Your task to perform on an android device: open app "LiveIn - Share Your Moment" (install if not already installed) and go to login screen Image 0: 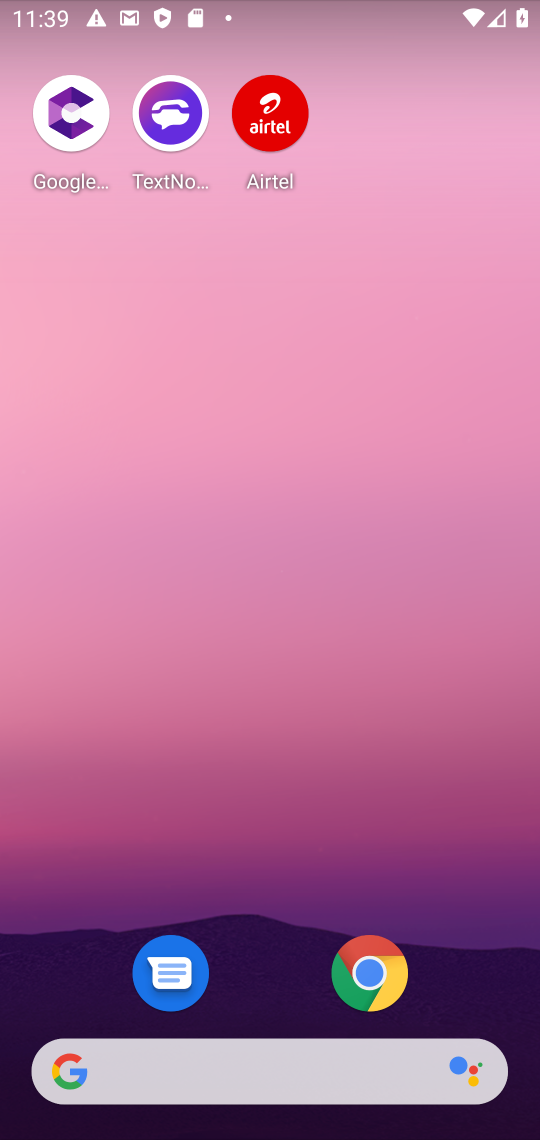
Step 0: drag from (277, 990) to (243, 223)
Your task to perform on an android device: open app "LiveIn - Share Your Moment" (install if not already installed) and go to login screen Image 1: 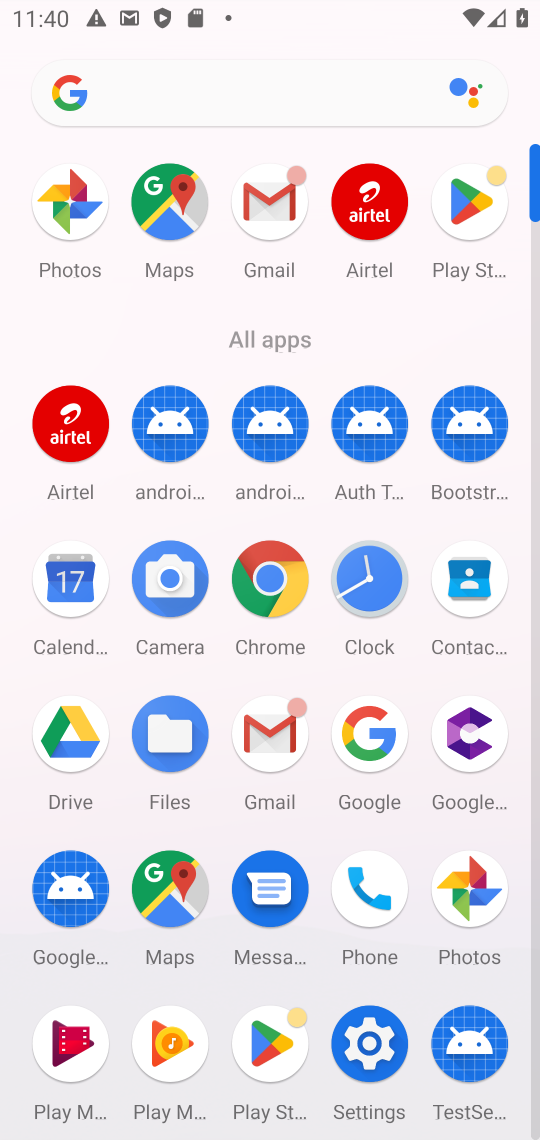
Step 1: click (274, 1045)
Your task to perform on an android device: open app "LiveIn - Share Your Moment" (install if not already installed) and go to login screen Image 2: 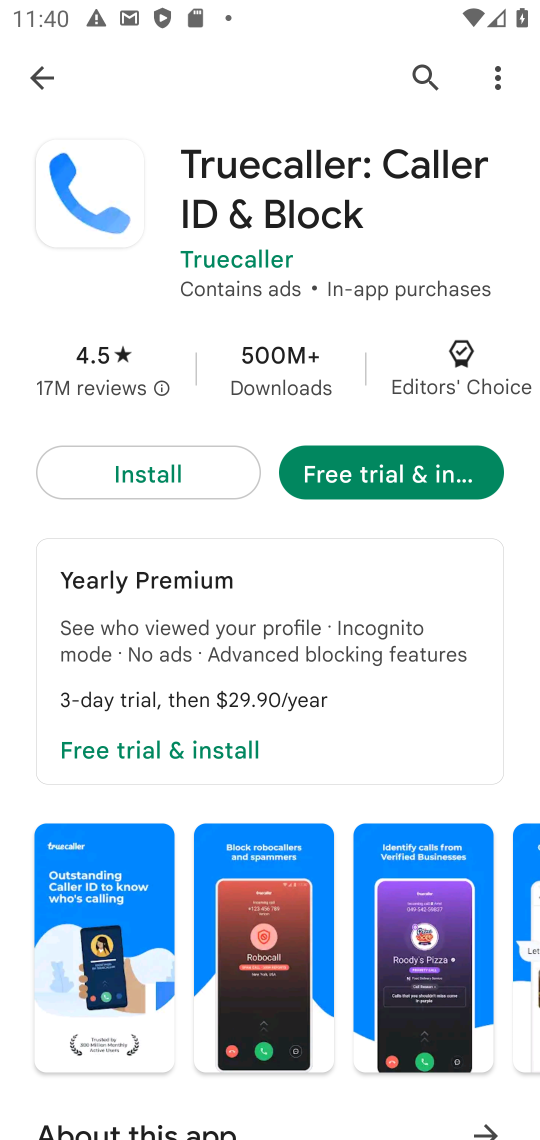
Step 2: click (417, 73)
Your task to perform on an android device: open app "LiveIn - Share Your Moment" (install if not already installed) and go to login screen Image 3: 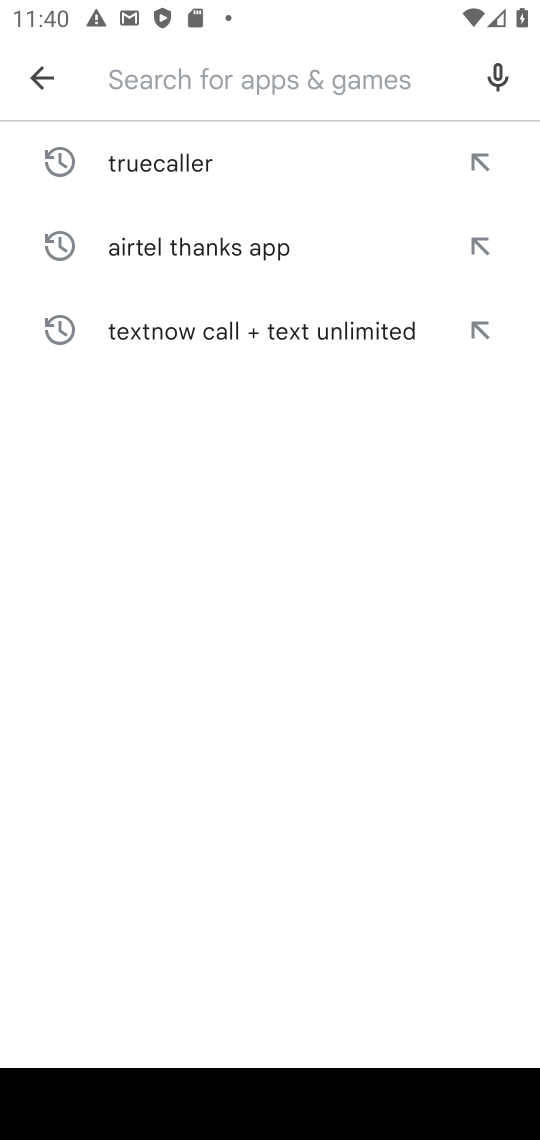
Step 3: type "LiveIn - Share Your Momen"
Your task to perform on an android device: open app "LiveIn - Share Your Moment" (install if not already installed) and go to login screen Image 4: 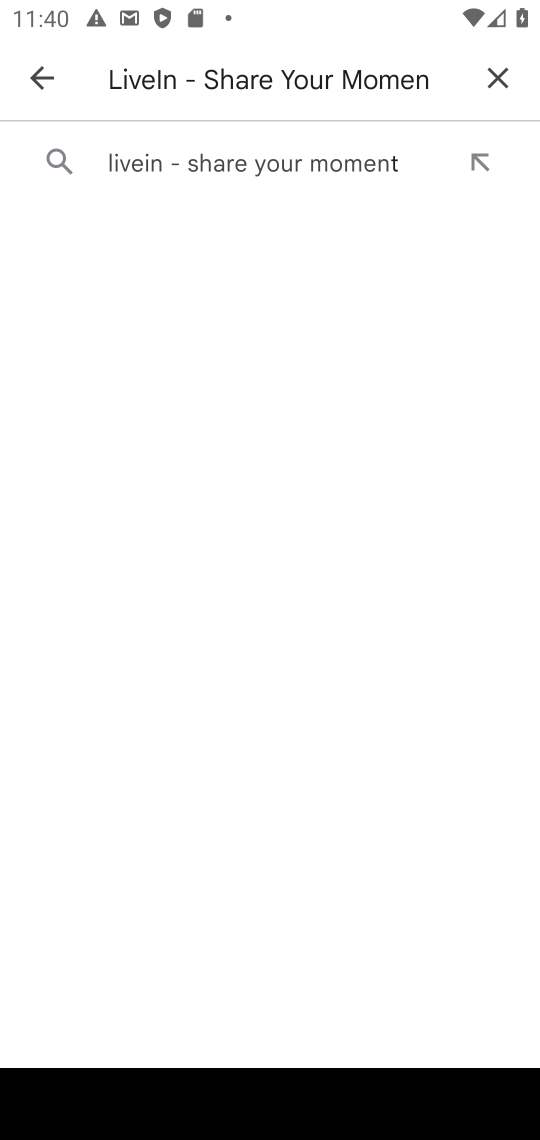
Step 4: click (225, 163)
Your task to perform on an android device: open app "LiveIn - Share Your Moment" (install if not already installed) and go to login screen Image 5: 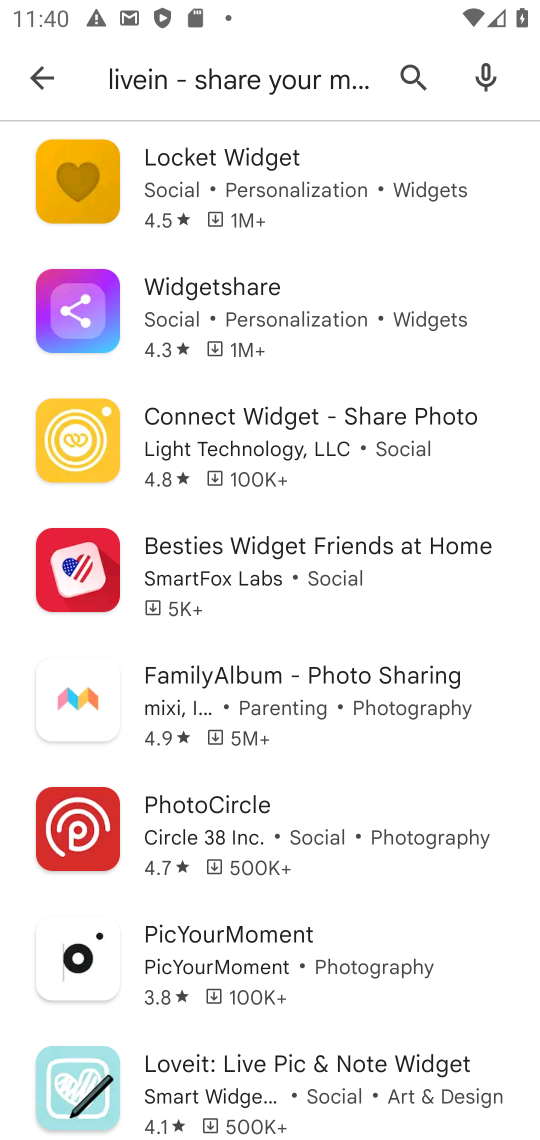
Step 5: task complete